Your task to perform on an android device: Go to notification settings Image 0: 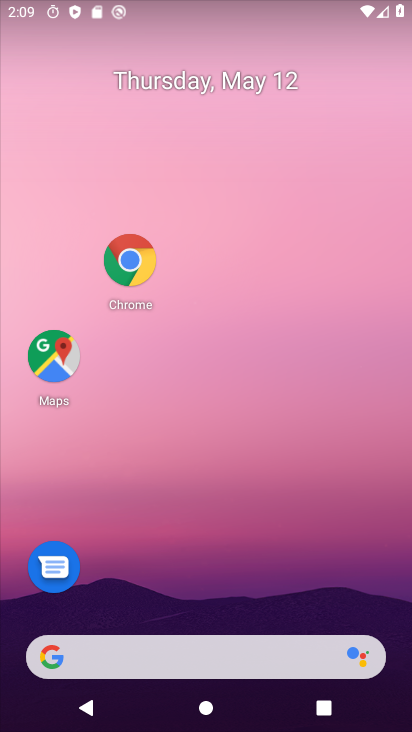
Step 0: drag from (172, 632) to (185, 261)
Your task to perform on an android device: Go to notification settings Image 1: 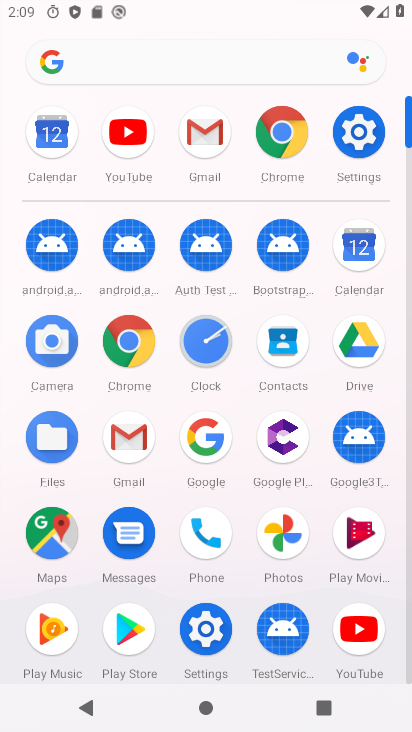
Step 1: click (363, 130)
Your task to perform on an android device: Go to notification settings Image 2: 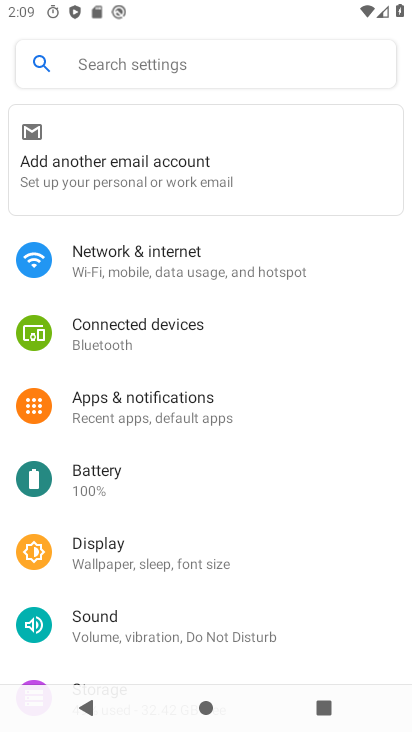
Step 2: click (159, 408)
Your task to perform on an android device: Go to notification settings Image 3: 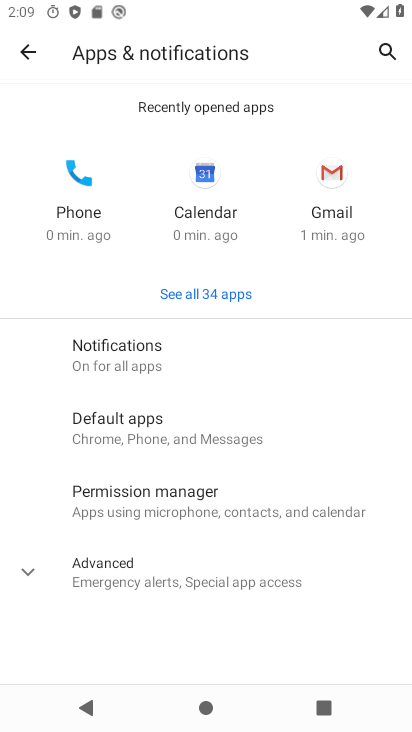
Step 3: click (151, 566)
Your task to perform on an android device: Go to notification settings Image 4: 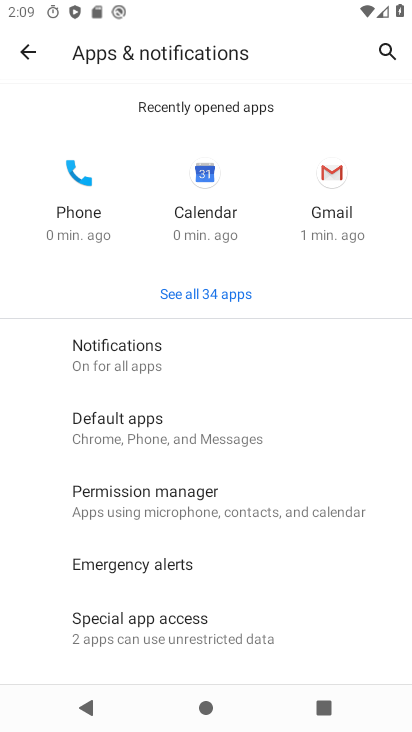
Step 4: task complete